Your task to perform on an android device: check google app version Image 0: 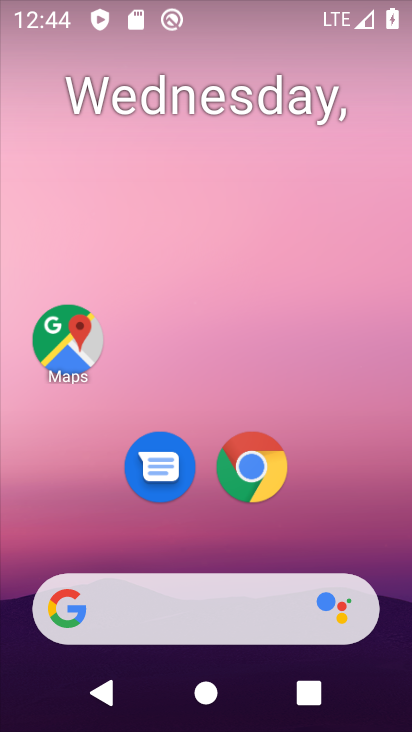
Step 0: drag from (340, 523) to (329, 107)
Your task to perform on an android device: check google app version Image 1: 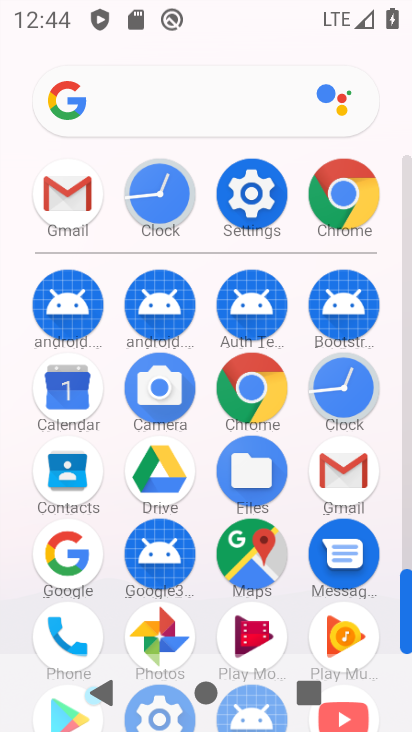
Step 1: click (83, 557)
Your task to perform on an android device: check google app version Image 2: 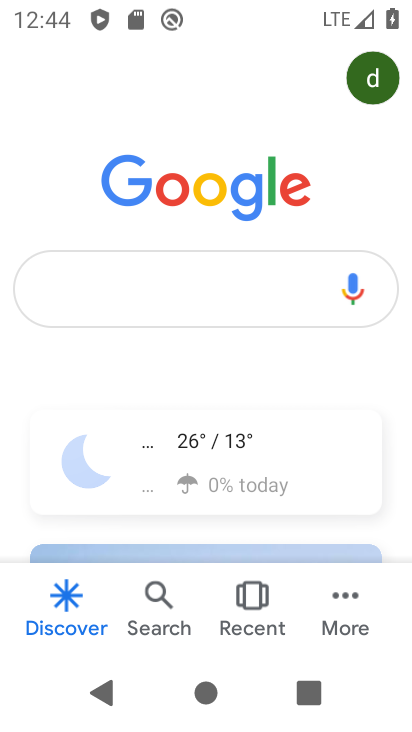
Step 2: click (340, 604)
Your task to perform on an android device: check google app version Image 3: 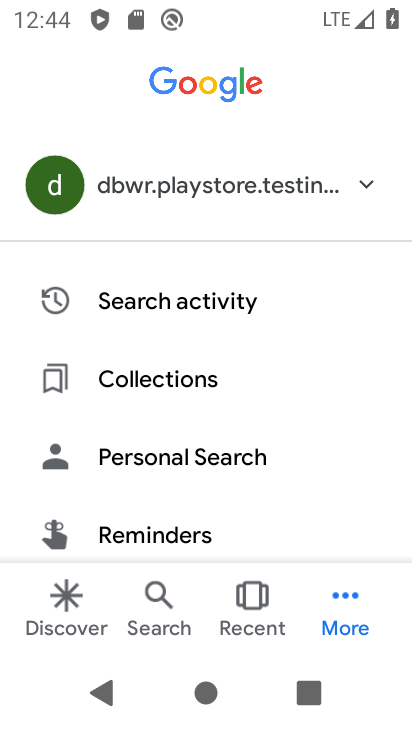
Step 3: drag from (349, 452) to (343, 303)
Your task to perform on an android device: check google app version Image 4: 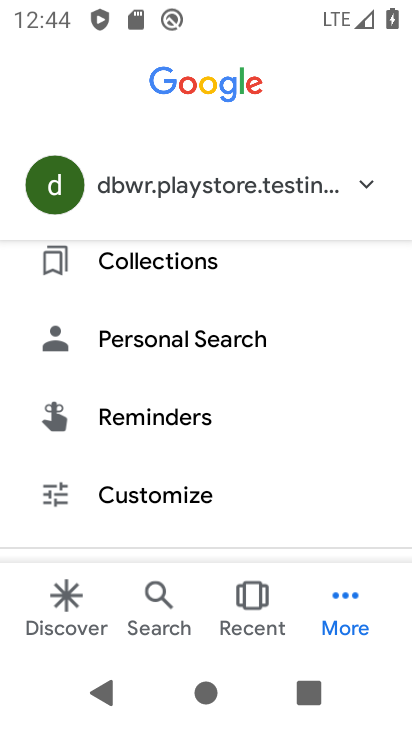
Step 4: drag from (317, 474) to (312, 300)
Your task to perform on an android device: check google app version Image 5: 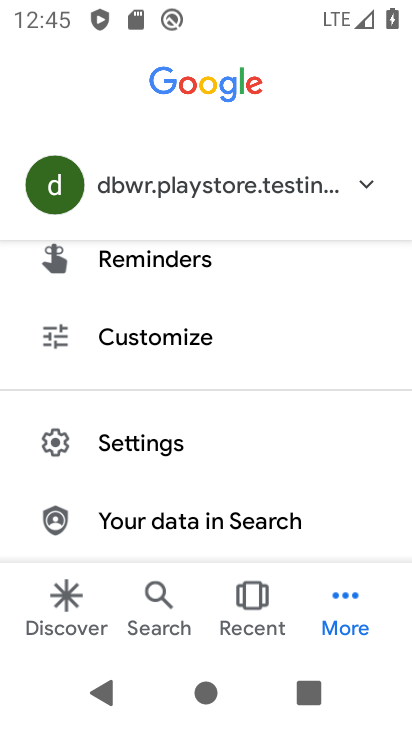
Step 5: click (193, 456)
Your task to perform on an android device: check google app version Image 6: 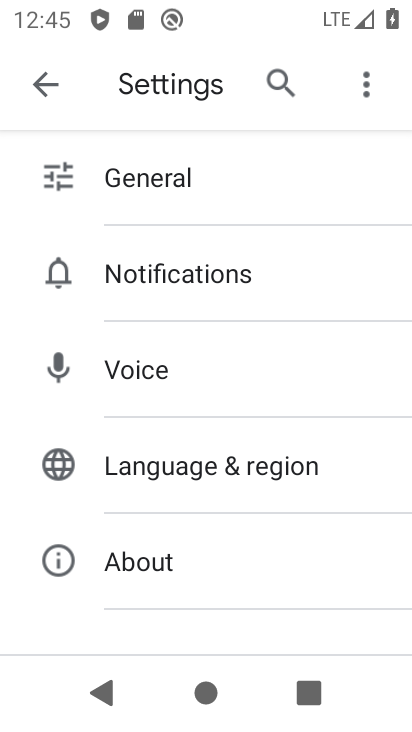
Step 6: drag from (307, 531) to (320, 411)
Your task to perform on an android device: check google app version Image 7: 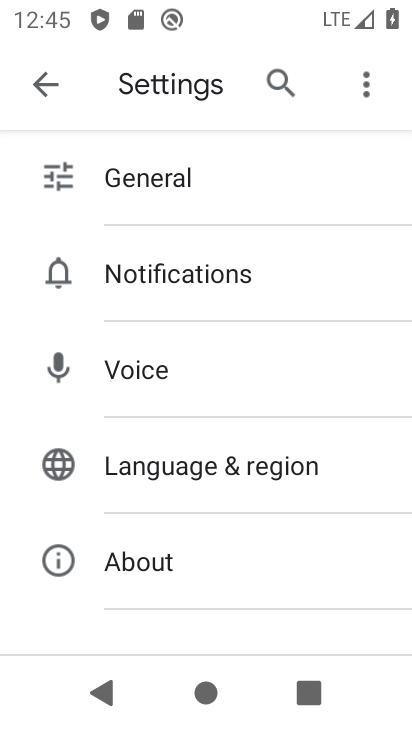
Step 7: click (279, 582)
Your task to perform on an android device: check google app version Image 8: 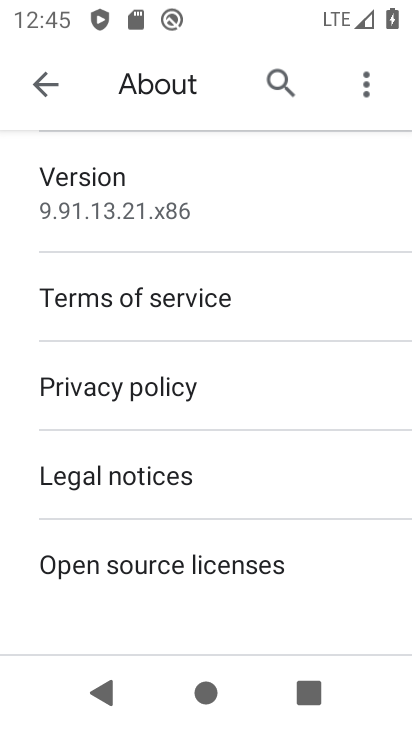
Step 8: task complete